Your task to perform on an android device: What's the weather? Image 0: 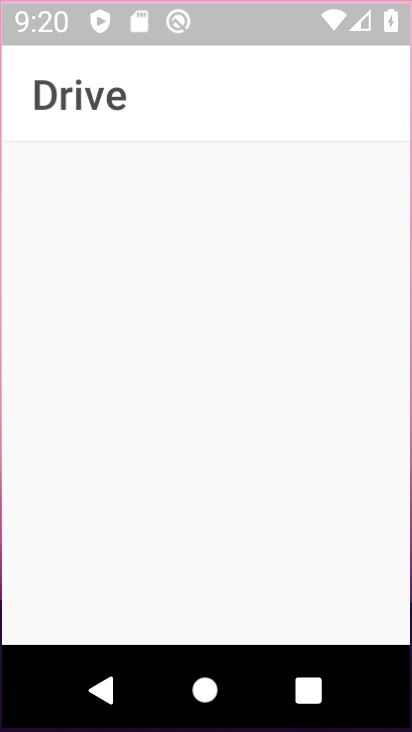
Step 0: press home button
Your task to perform on an android device: What's the weather? Image 1: 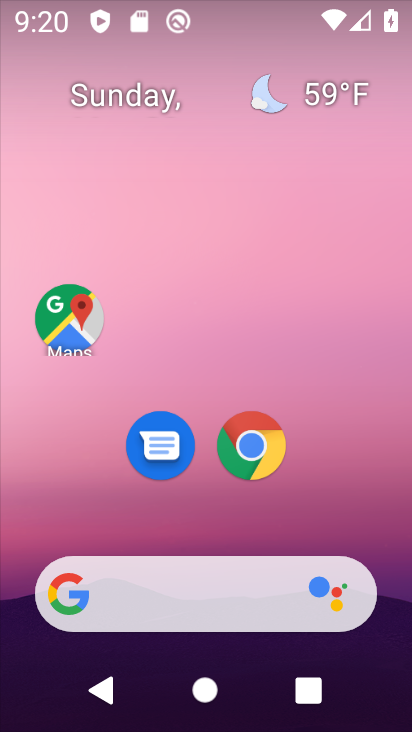
Step 1: click (318, 103)
Your task to perform on an android device: What's the weather? Image 2: 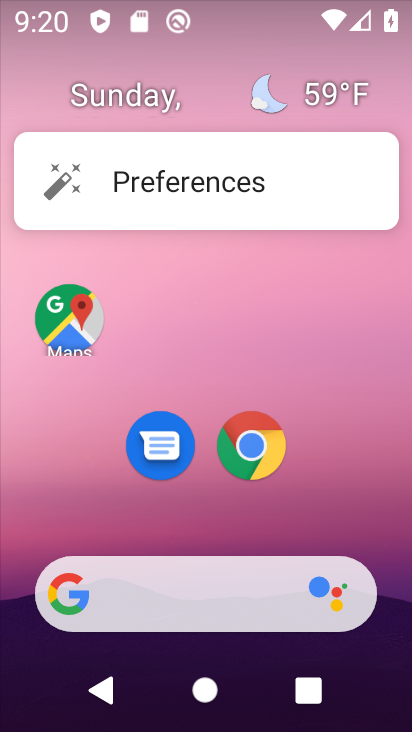
Step 2: click (333, 103)
Your task to perform on an android device: What's the weather? Image 3: 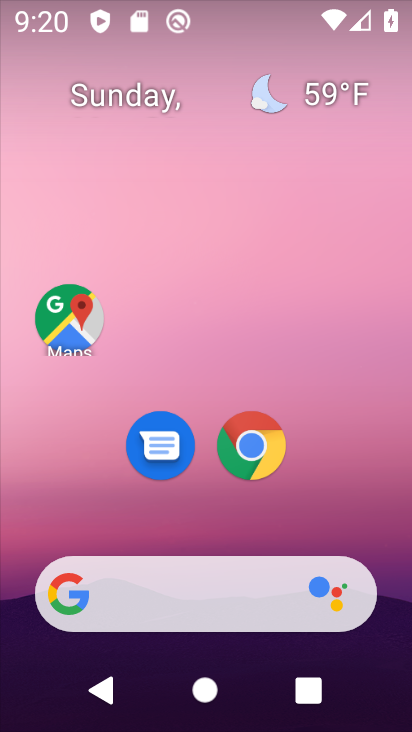
Step 3: click (305, 107)
Your task to perform on an android device: What's the weather? Image 4: 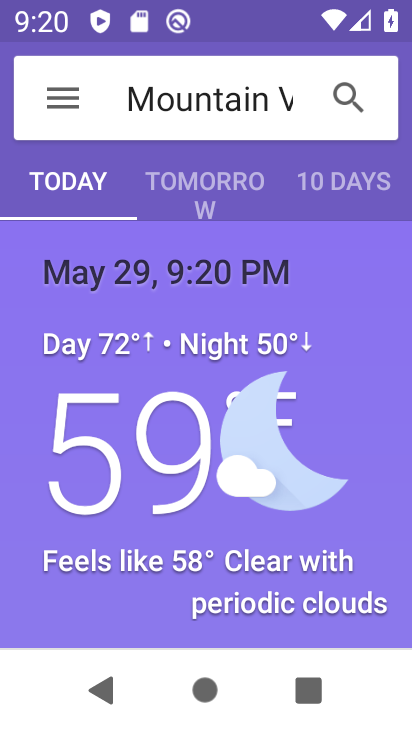
Step 4: task complete